Your task to perform on an android device: What's on my calendar today? Image 0: 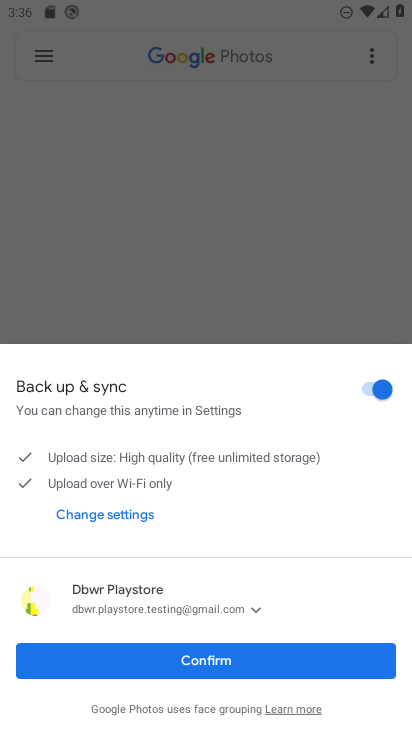
Step 0: click (297, 674)
Your task to perform on an android device: What's on my calendar today? Image 1: 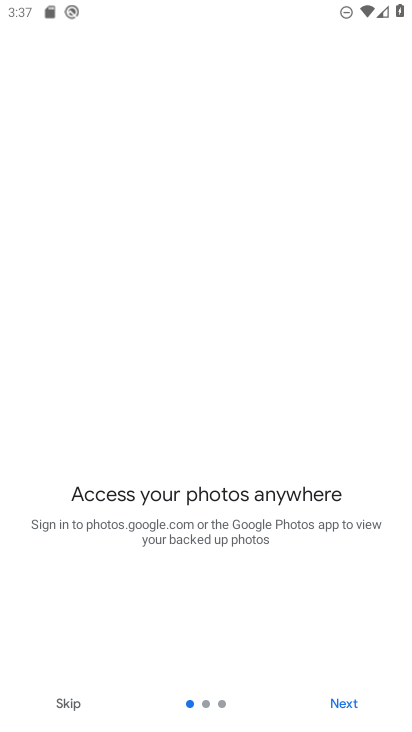
Step 1: press home button
Your task to perform on an android device: What's on my calendar today? Image 2: 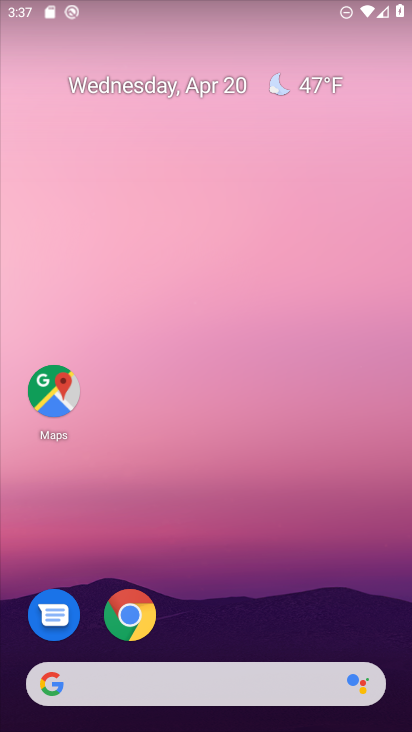
Step 2: drag from (259, 625) to (297, 25)
Your task to perform on an android device: What's on my calendar today? Image 3: 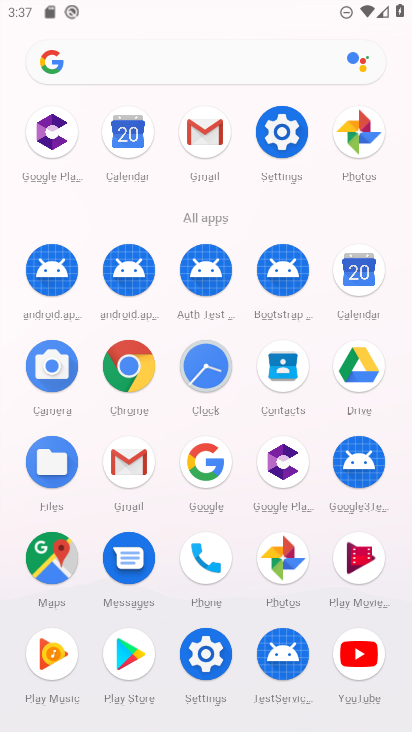
Step 3: click (139, 133)
Your task to perform on an android device: What's on my calendar today? Image 4: 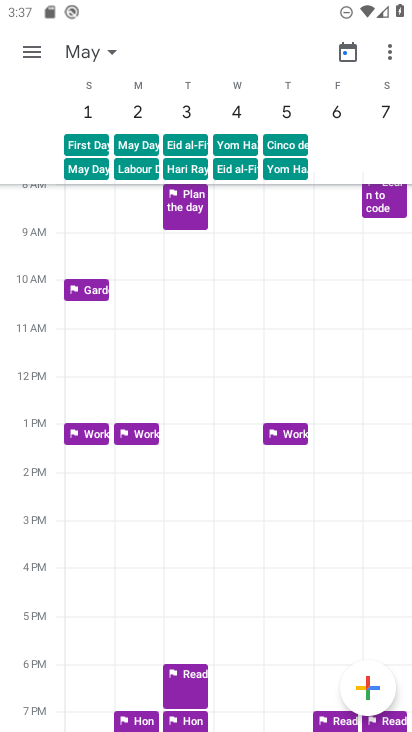
Step 4: click (104, 56)
Your task to perform on an android device: What's on my calendar today? Image 5: 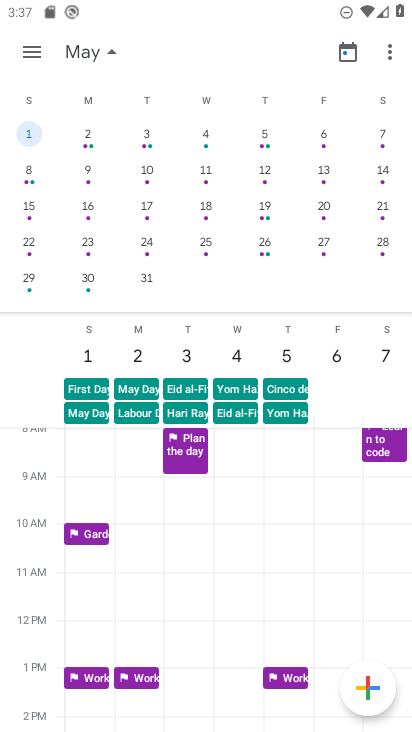
Step 5: drag from (213, 204) to (325, 215)
Your task to perform on an android device: What's on my calendar today? Image 6: 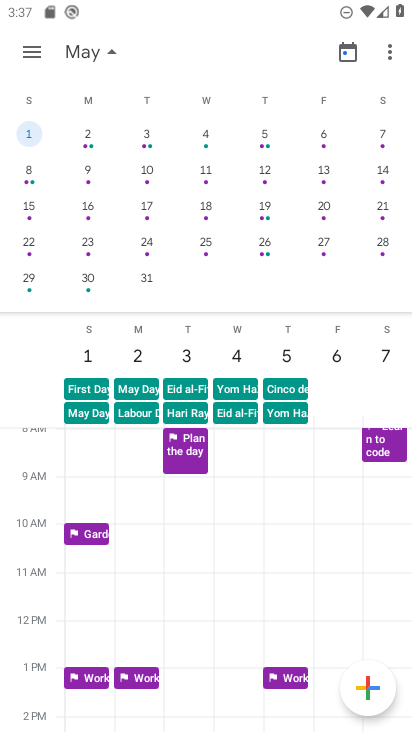
Step 6: drag from (51, 200) to (411, 209)
Your task to perform on an android device: What's on my calendar today? Image 7: 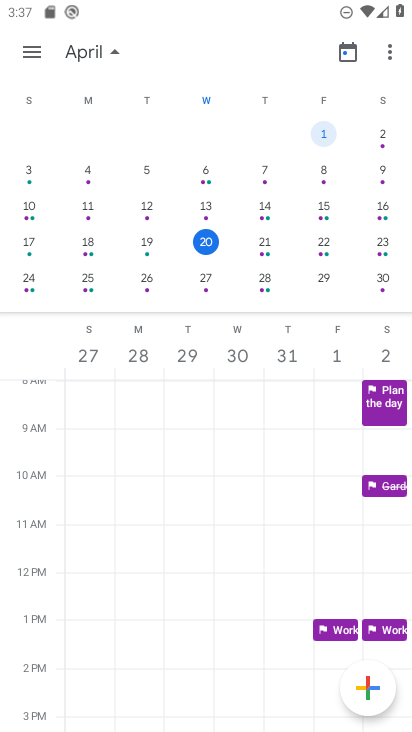
Step 7: click (32, 48)
Your task to perform on an android device: What's on my calendar today? Image 8: 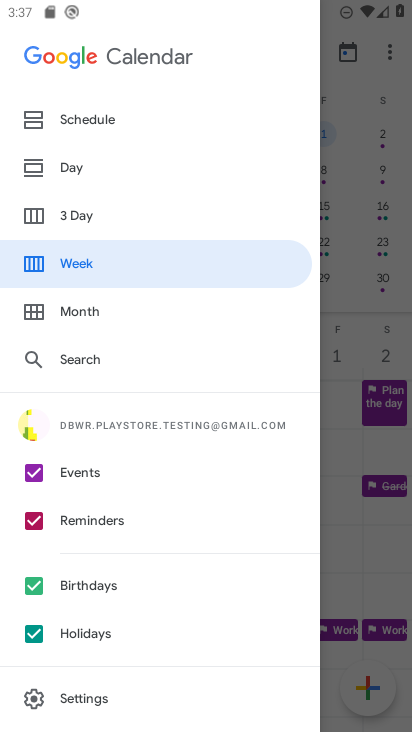
Step 8: click (89, 172)
Your task to perform on an android device: What's on my calendar today? Image 9: 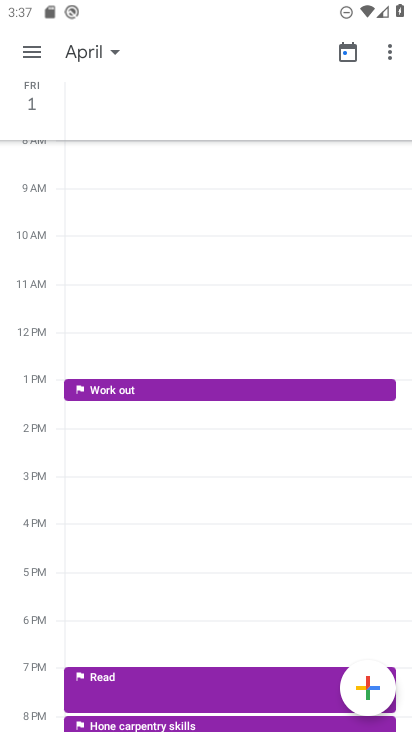
Step 9: click (107, 50)
Your task to perform on an android device: What's on my calendar today? Image 10: 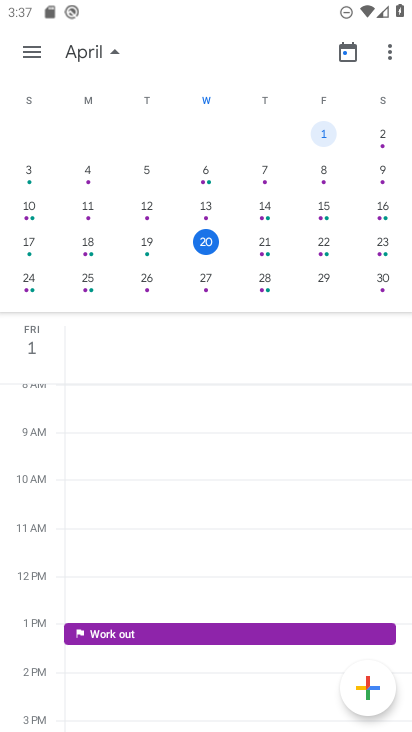
Step 10: click (203, 240)
Your task to perform on an android device: What's on my calendar today? Image 11: 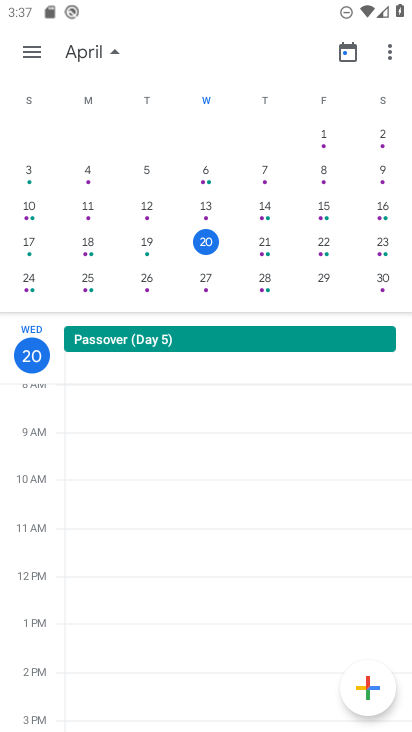
Step 11: task complete